Your task to perform on an android device: What time is it in Paris? Image 0: 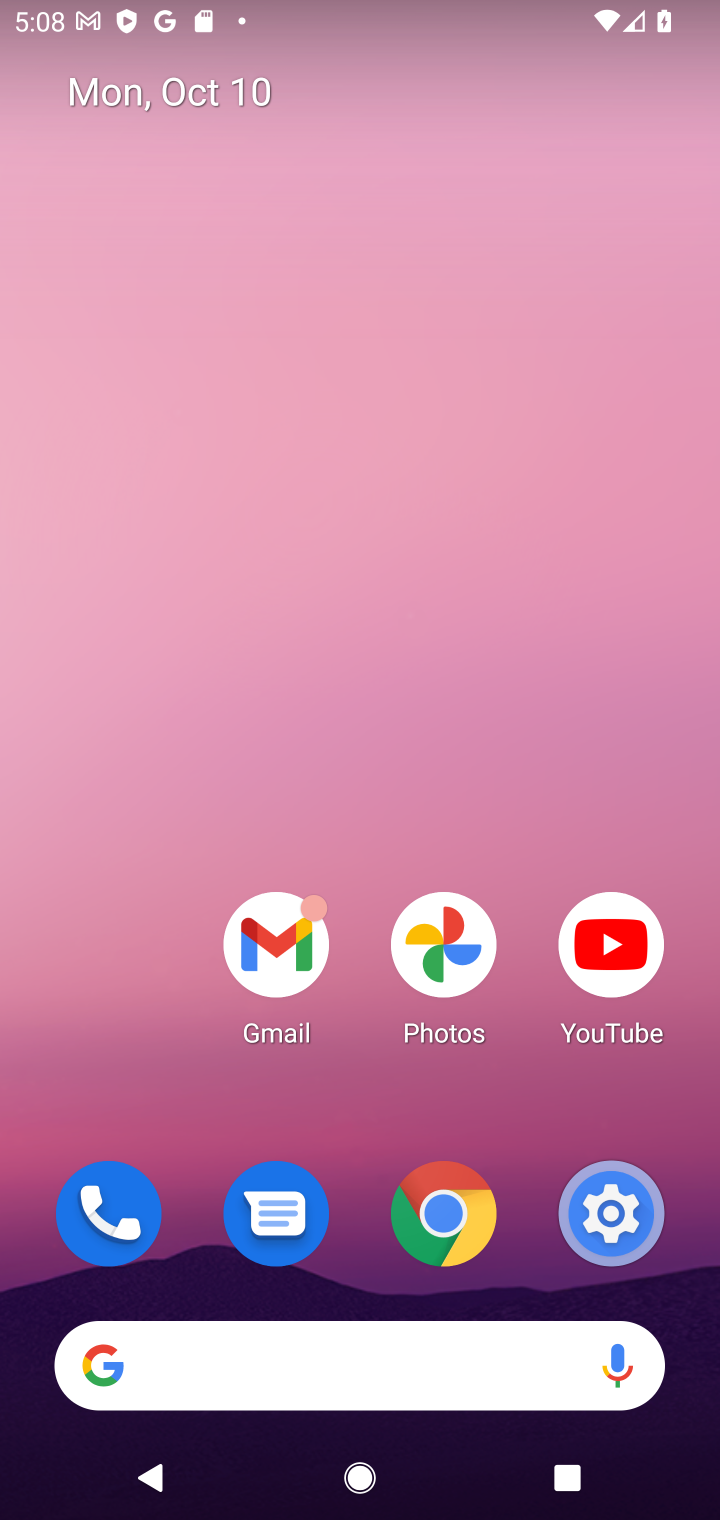
Step 0: click (400, 1340)
Your task to perform on an android device: What time is it in Paris? Image 1: 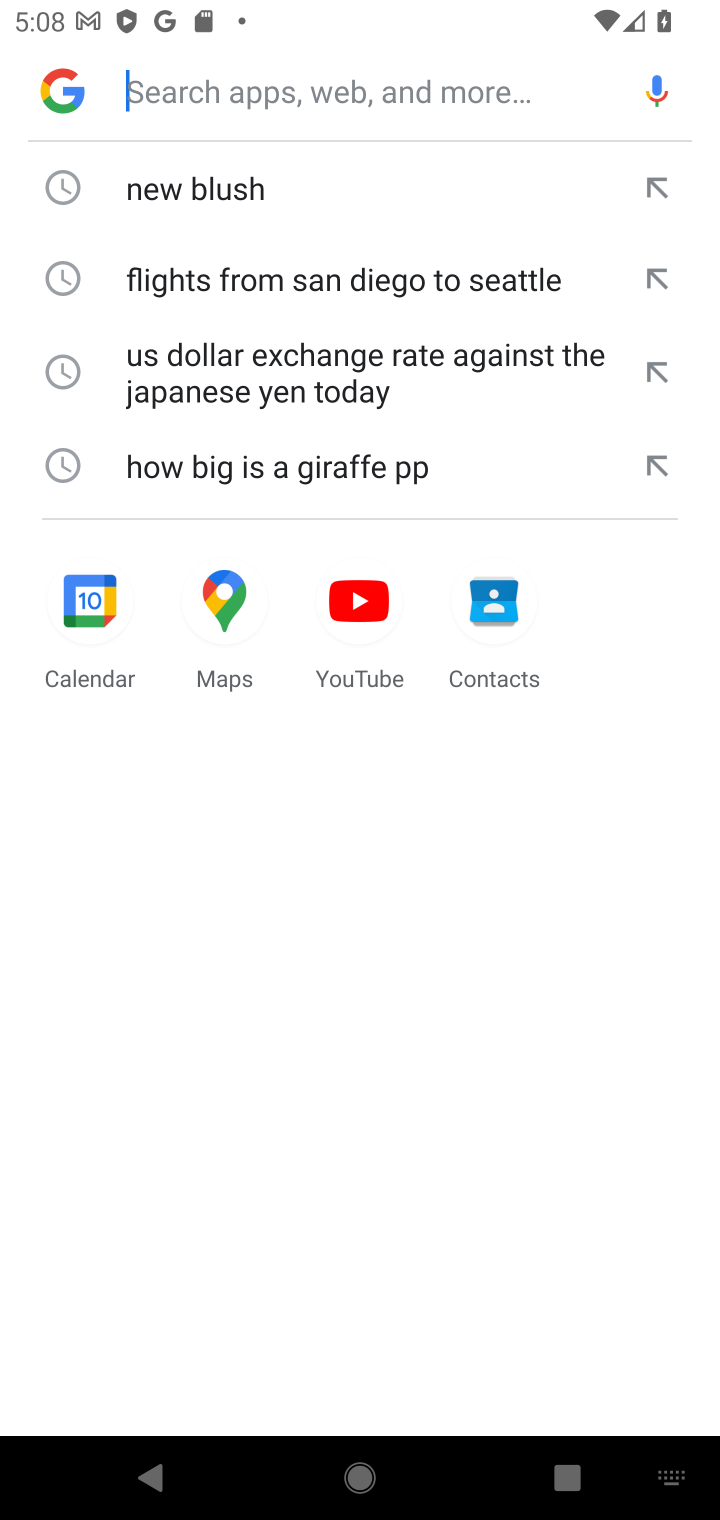
Step 1: type "time is it in Paris"
Your task to perform on an android device: What time is it in Paris? Image 2: 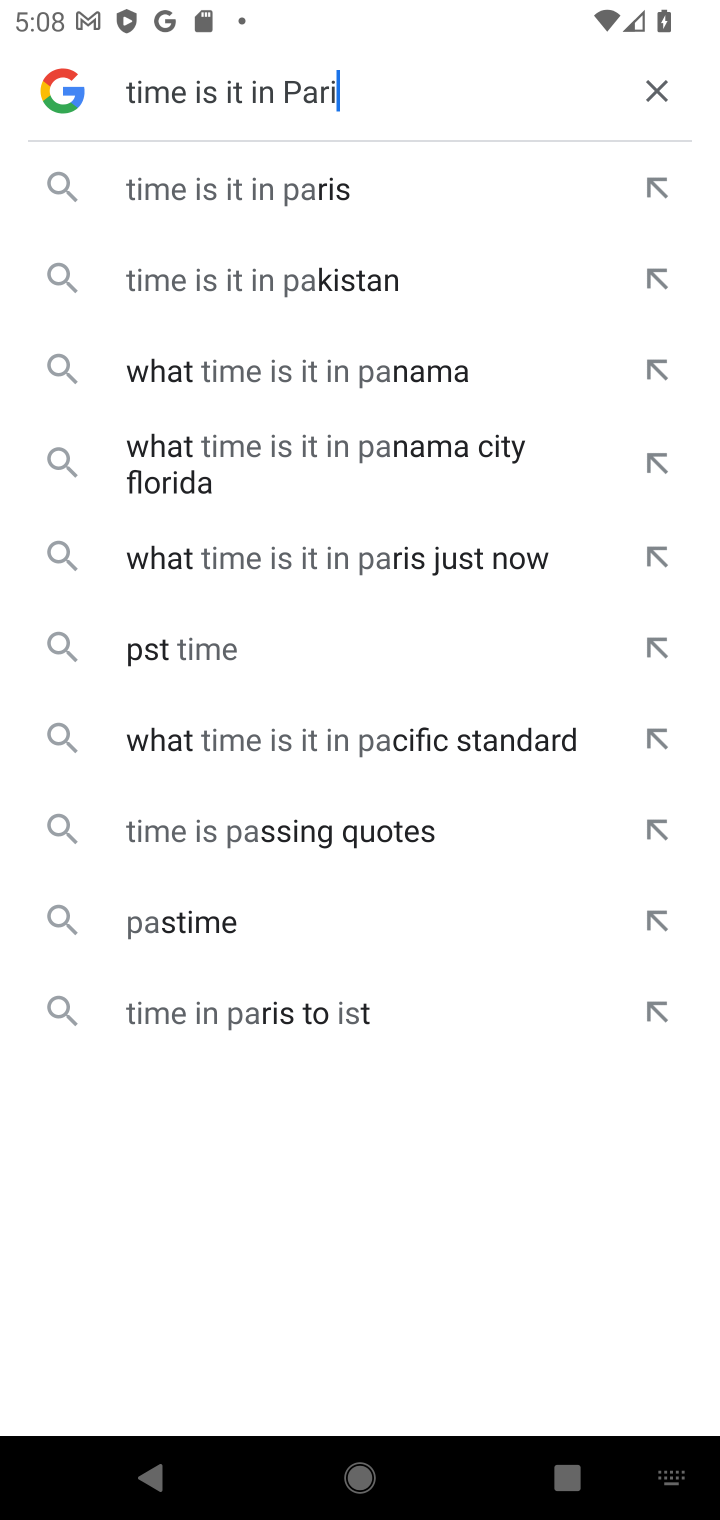
Step 2: type ""
Your task to perform on an android device: What time is it in Paris? Image 3: 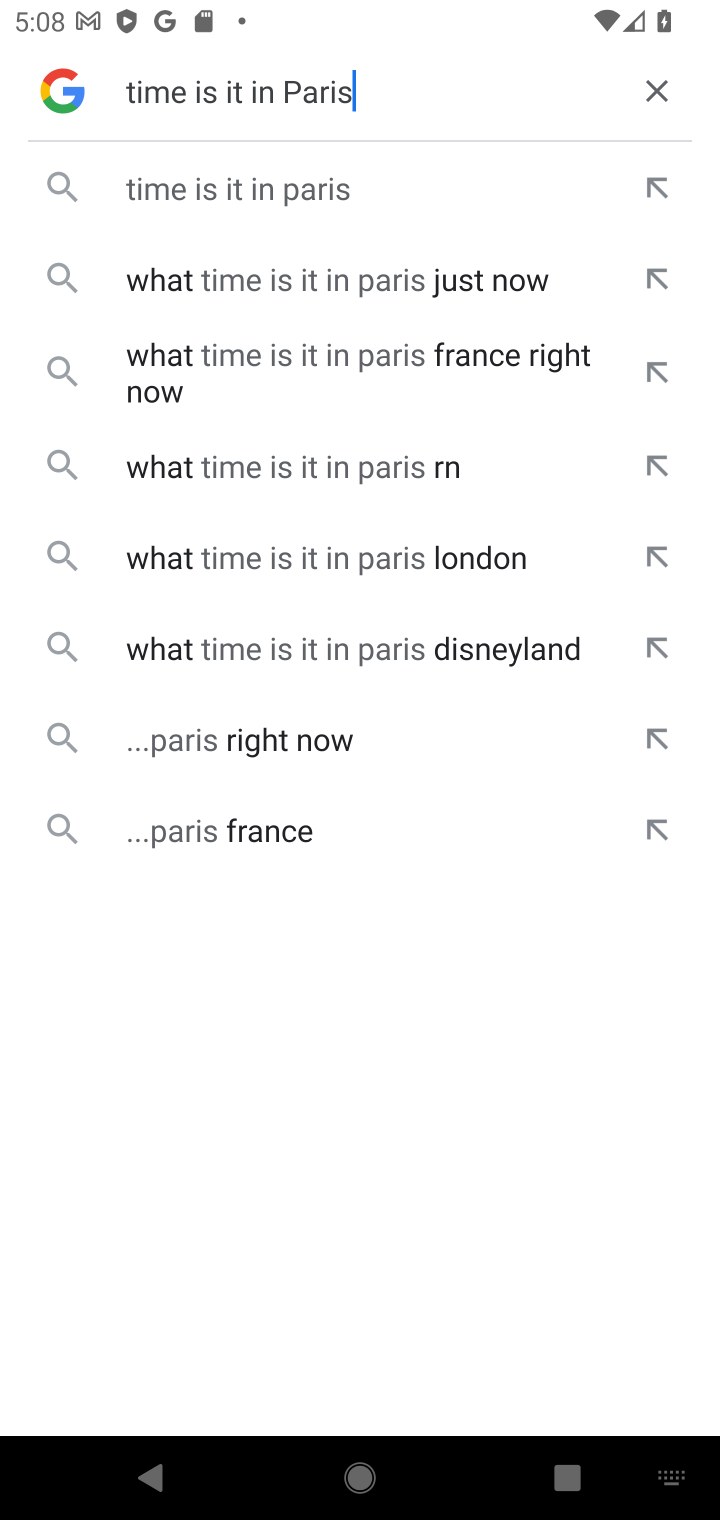
Step 3: click (270, 204)
Your task to perform on an android device: What time is it in Paris? Image 4: 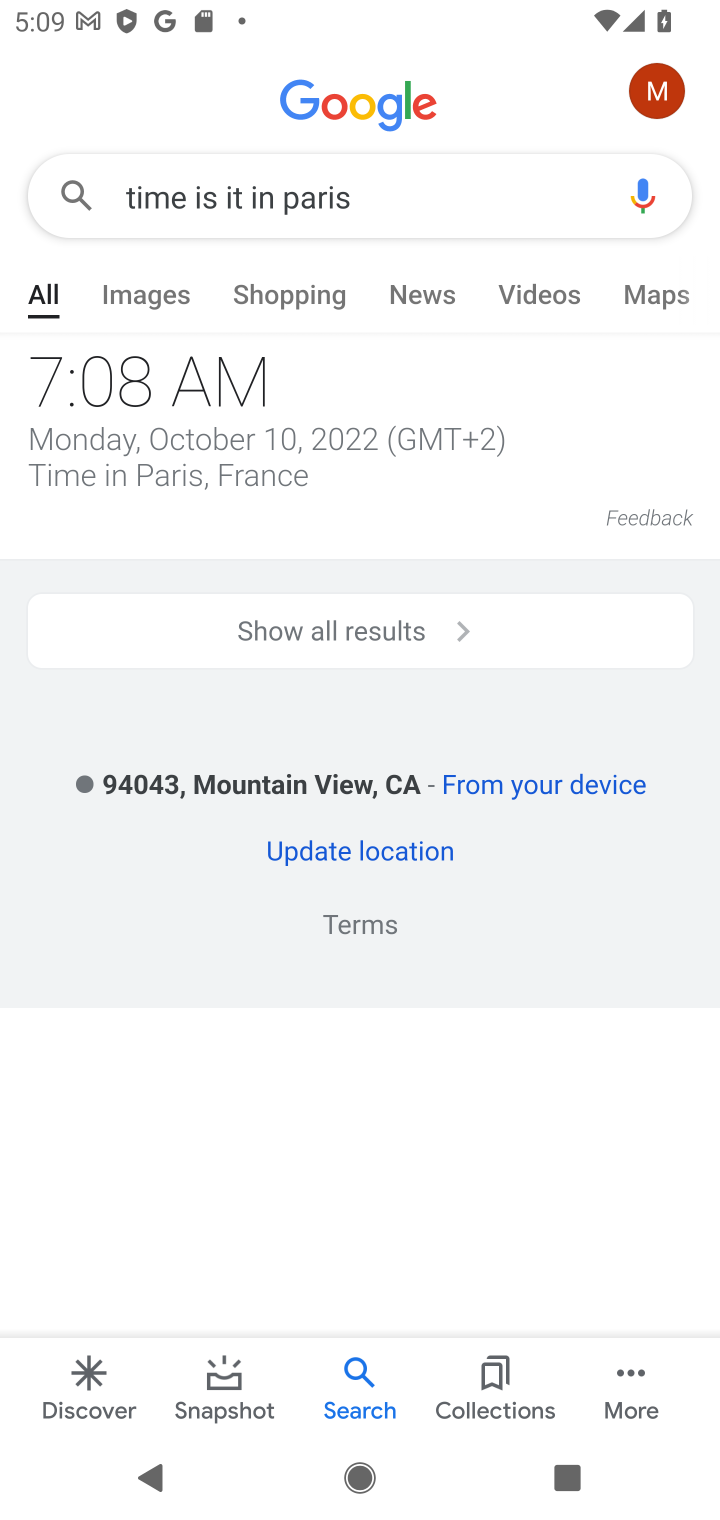
Step 4: task complete